Your task to perform on an android device: What is the news today? Image 0: 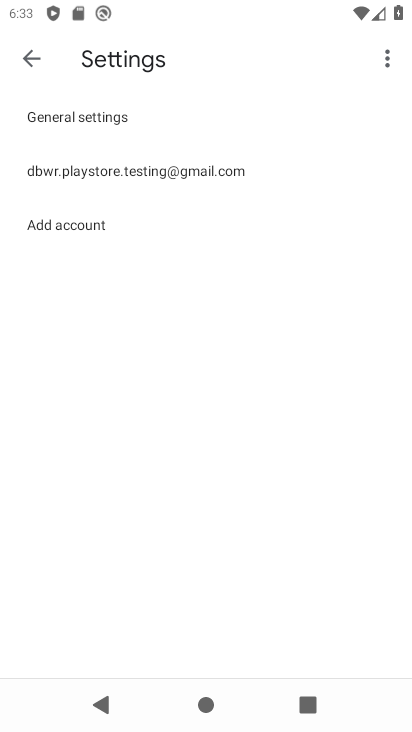
Step 0: press home button
Your task to perform on an android device: What is the news today? Image 1: 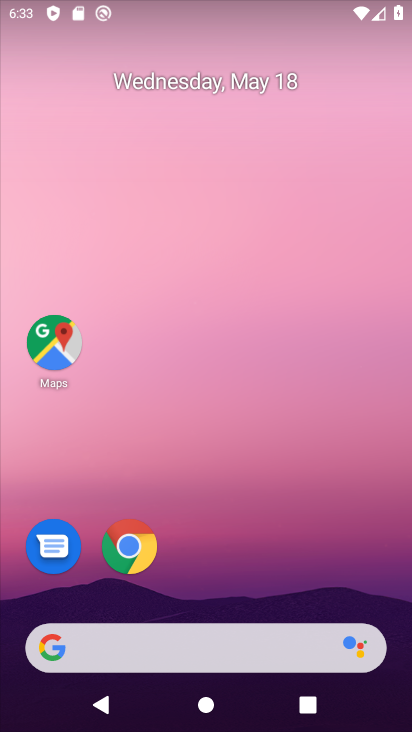
Step 1: drag from (377, 581) to (195, 116)
Your task to perform on an android device: What is the news today? Image 2: 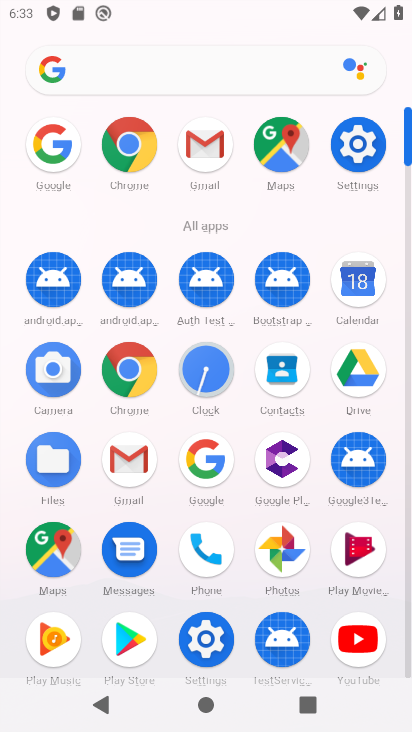
Step 2: click (208, 471)
Your task to perform on an android device: What is the news today? Image 3: 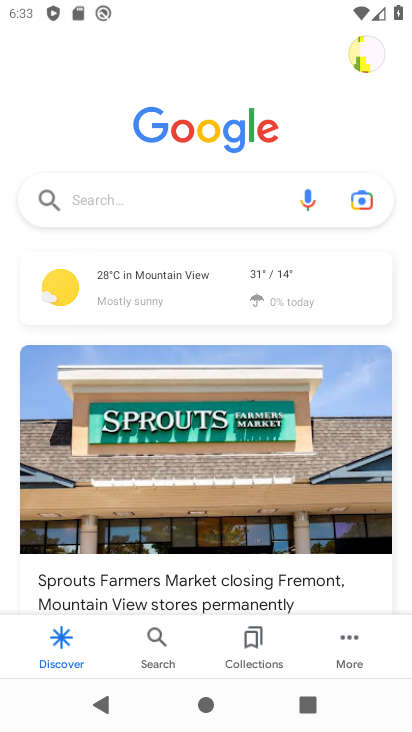
Step 3: click (197, 188)
Your task to perform on an android device: What is the news today? Image 4: 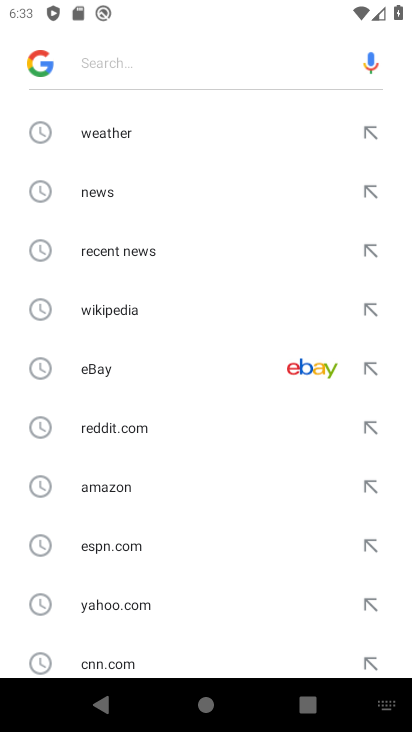
Step 4: drag from (173, 522) to (171, 242)
Your task to perform on an android device: What is the news today? Image 5: 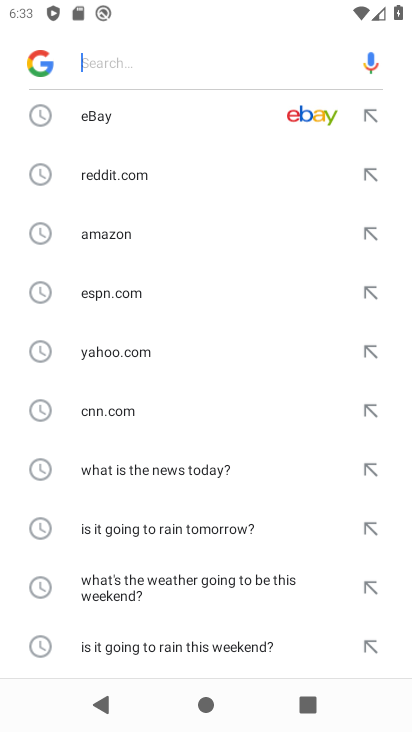
Step 5: click (189, 482)
Your task to perform on an android device: What is the news today? Image 6: 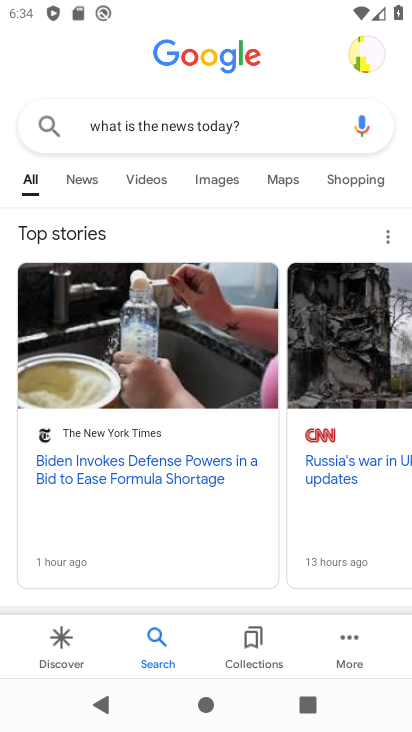
Step 6: task complete